Your task to perform on an android device: see sites visited before in the chrome app Image 0: 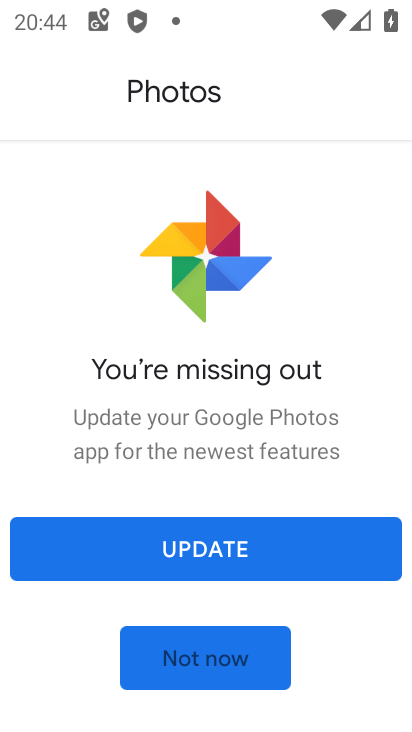
Step 0: press home button
Your task to perform on an android device: see sites visited before in the chrome app Image 1: 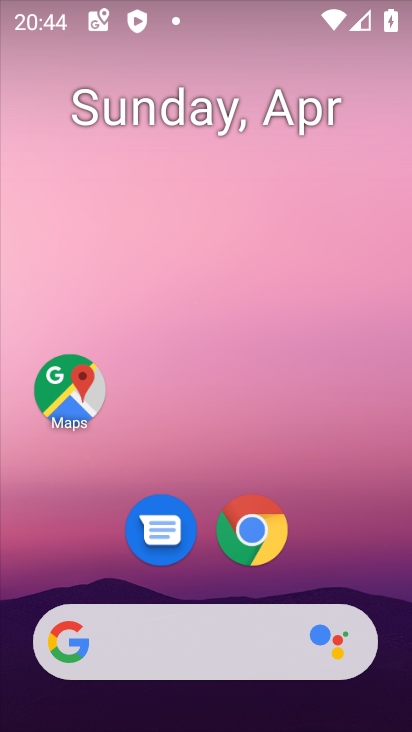
Step 1: click (241, 549)
Your task to perform on an android device: see sites visited before in the chrome app Image 2: 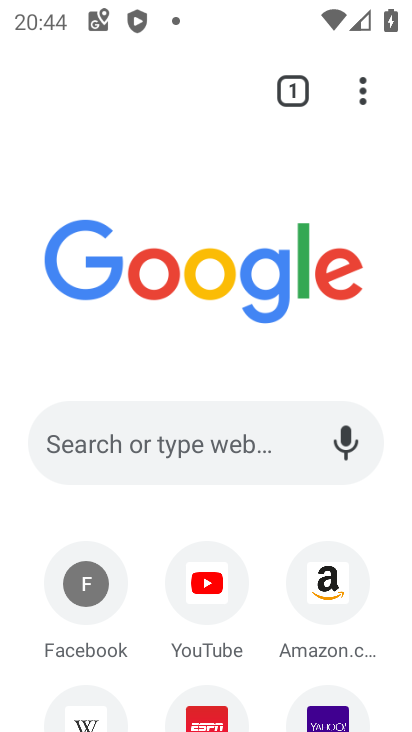
Step 2: click (366, 88)
Your task to perform on an android device: see sites visited before in the chrome app Image 3: 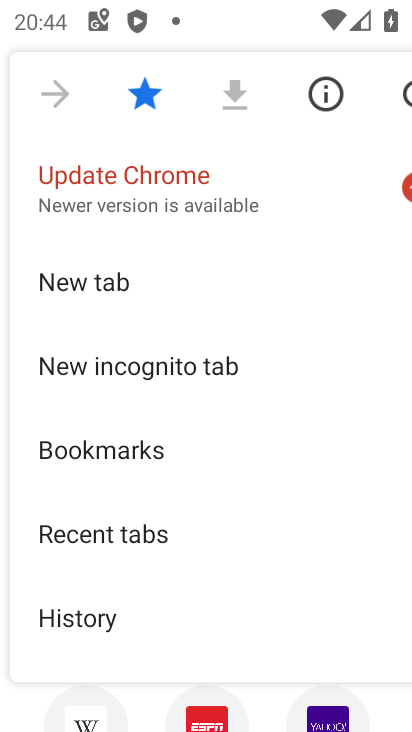
Step 3: click (74, 615)
Your task to perform on an android device: see sites visited before in the chrome app Image 4: 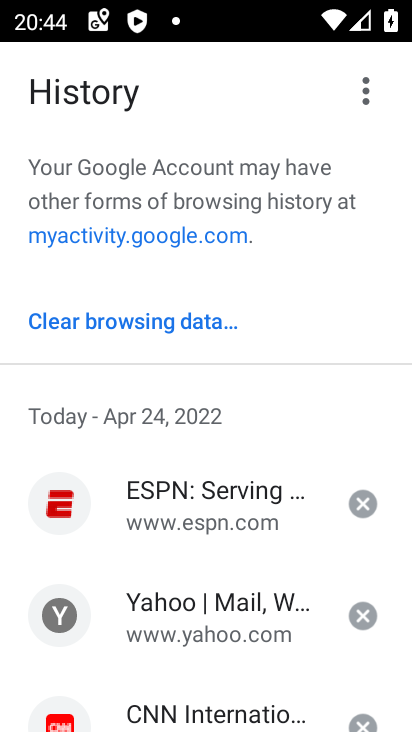
Step 4: task complete